Your task to perform on an android device: Open Google Maps and go to "Timeline" Image 0: 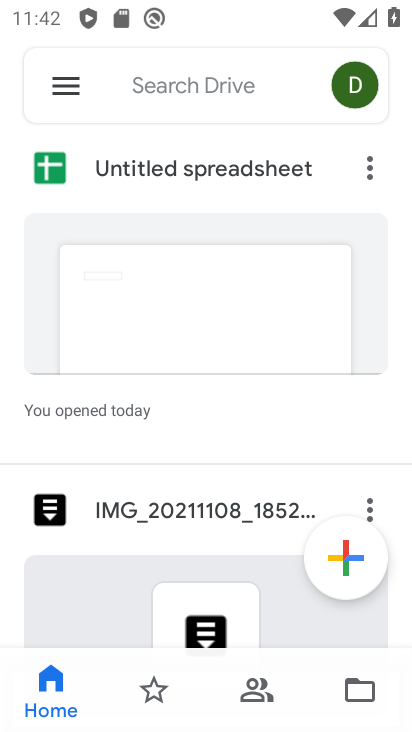
Step 0: press home button
Your task to perform on an android device: Open Google Maps and go to "Timeline" Image 1: 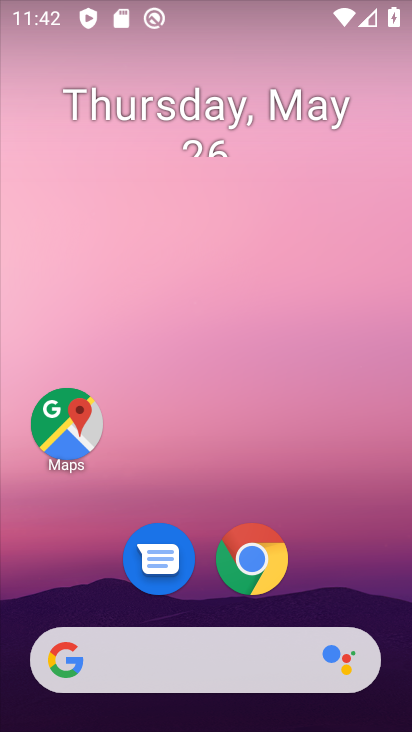
Step 1: click (58, 430)
Your task to perform on an android device: Open Google Maps and go to "Timeline" Image 2: 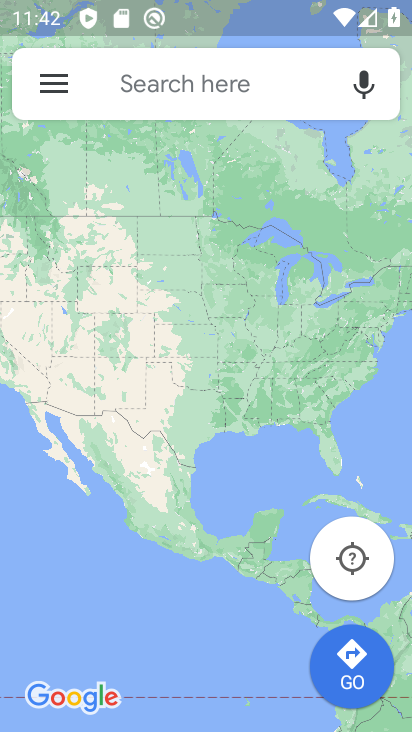
Step 2: click (62, 80)
Your task to perform on an android device: Open Google Maps and go to "Timeline" Image 3: 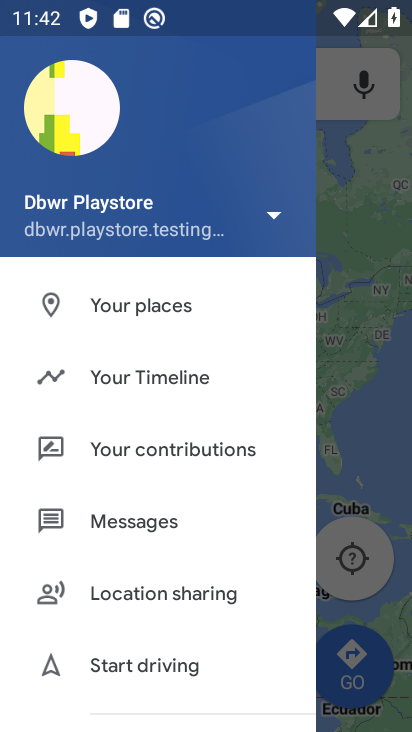
Step 3: click (196, 379)
Your task to perform on an android device: Open Google Maps and go to "Timeline" Image 4: 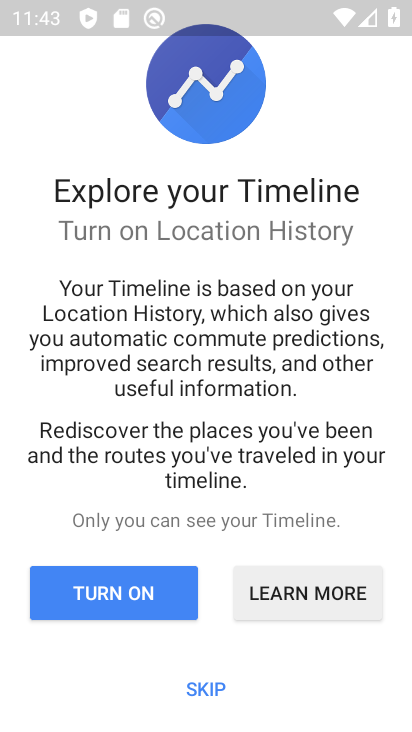
Step 4: task complete